Your task to perform on an android device: What is the news today? Image 0: 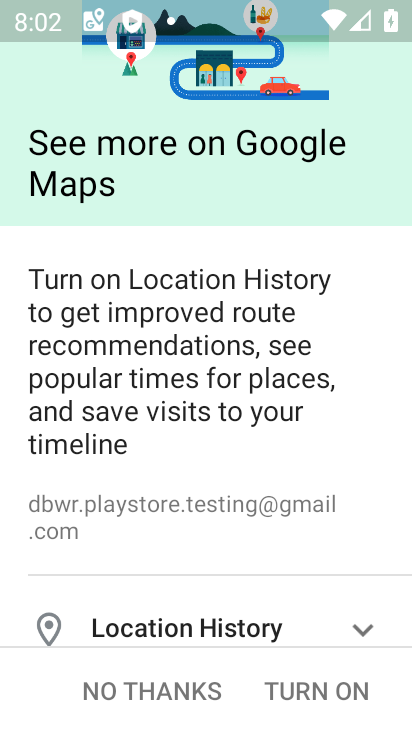
Step 0: press home button
Your task to perform on an android device: What is the news today? Image 1: 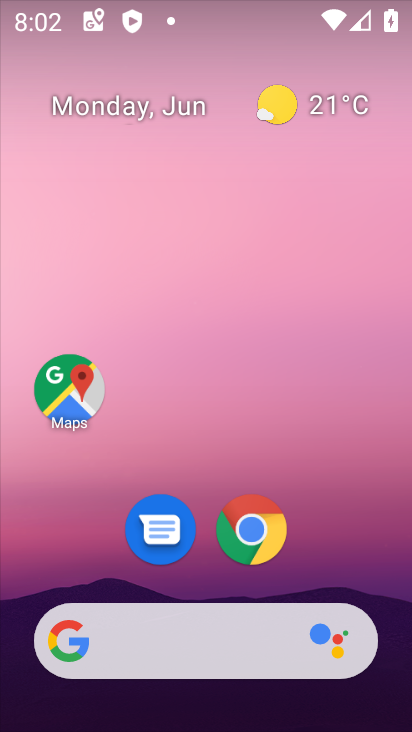
Step 1: click (155, 656)
Your task to perform on an android device: What is the news today? Image 2: 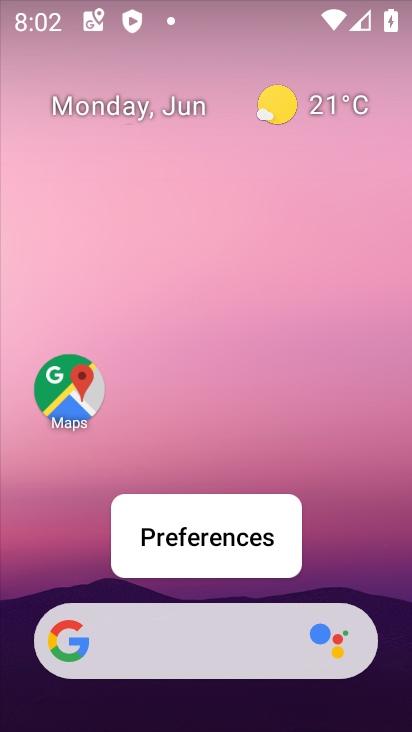
Step 2: click (183, 657)
Your task to perform on an android device: What is the news today? Image 3: 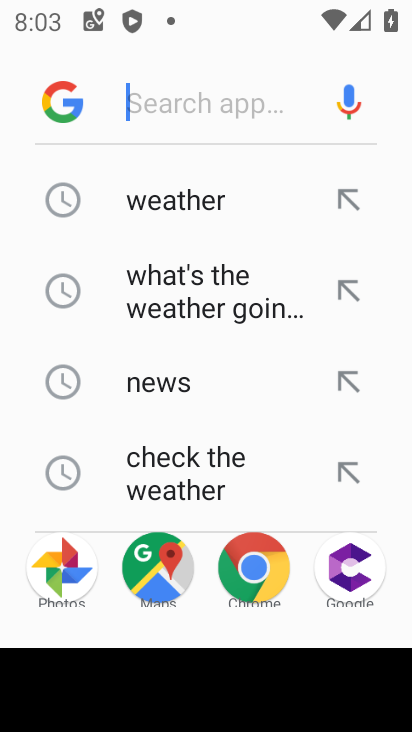
Step 3: click (172, 391)
Your task to perform on an android device: What is the news today? Image 4: 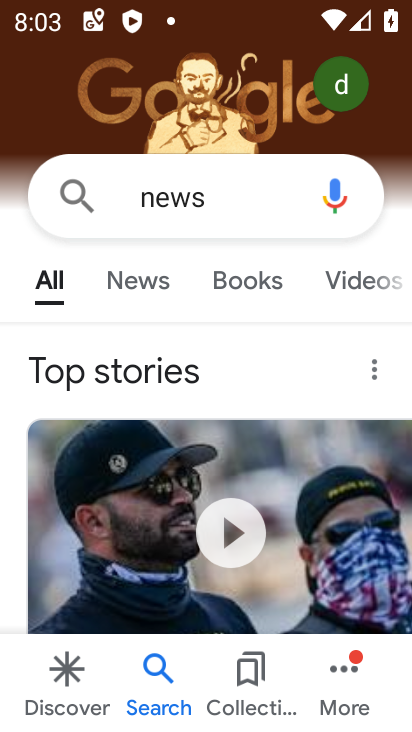
Step 4: task complete